Your task to perform on an android device: Open calendar and show me the fourth week of next month Image 0: 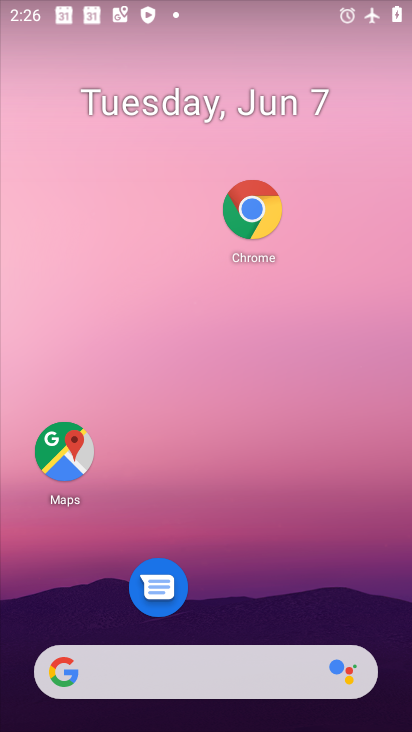
Step 0: drag from (280, 627) to (199, 43)
Your task to perform on an android device: Open calendar and show me the fourth week of next month Image 1: 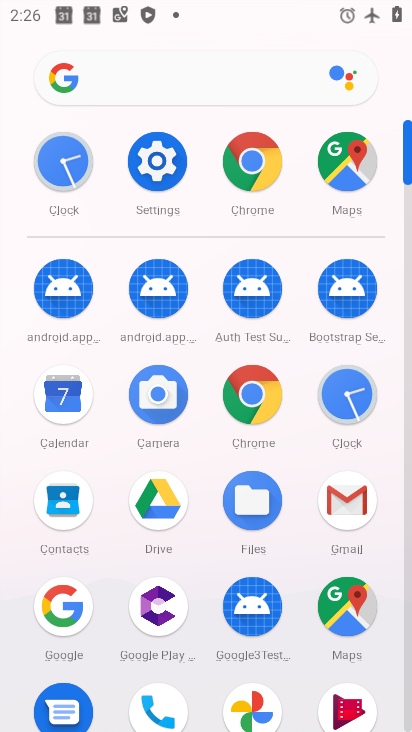
Step 1: click (68, 425)
Your task to perform on an android device: Open calendar and show me the fourth week of next month Image 2: 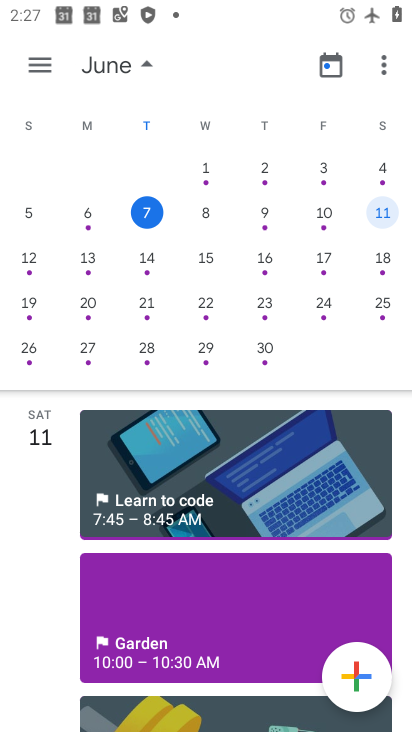
Step 2: drag from (301, 295) to (5, 232)
Your task to perform on an android device: Open calendar and show me the fourth week of next month Image 3: 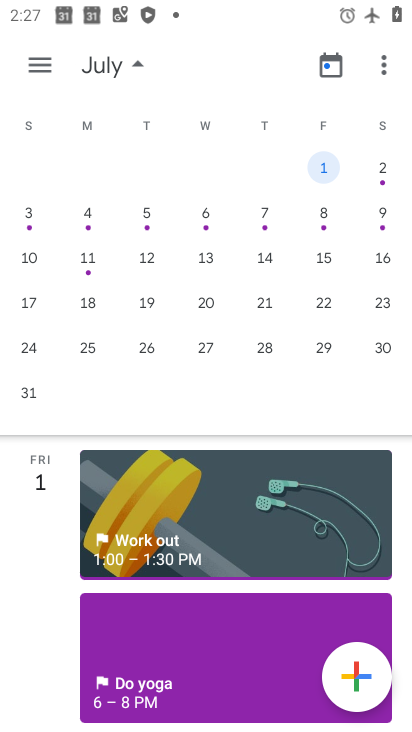
Step 3: click (33, 357)
Your task to perform on an android device: Open calendar and show me the fourth week of next month Image 4: 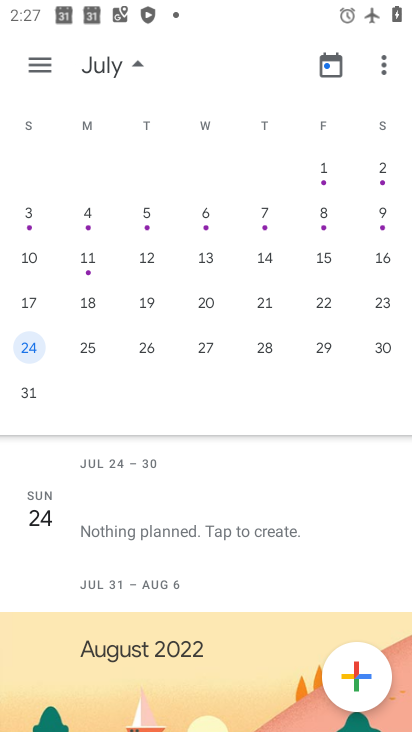
Step 4: task complete